Your task to perform on an android device: toggle wifi Image 0: 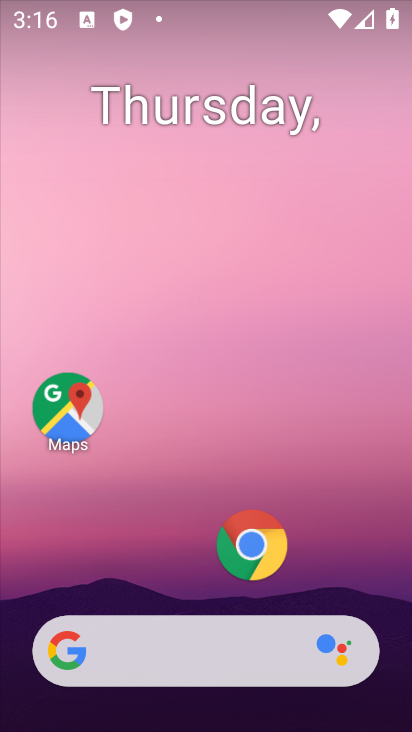
Step 0: drag from (295, 622) to (333, 0)
Your task to perform on an android device: toggle wifi Image 1: 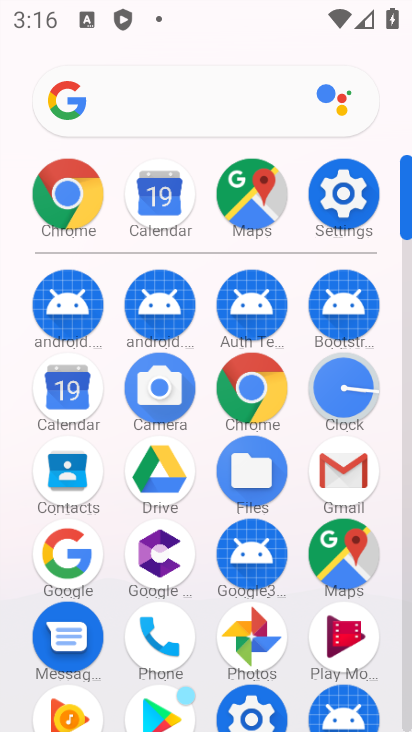
Step 1: click (352, 206)
Your task to perform on an android device: toggle wifi Image 2: 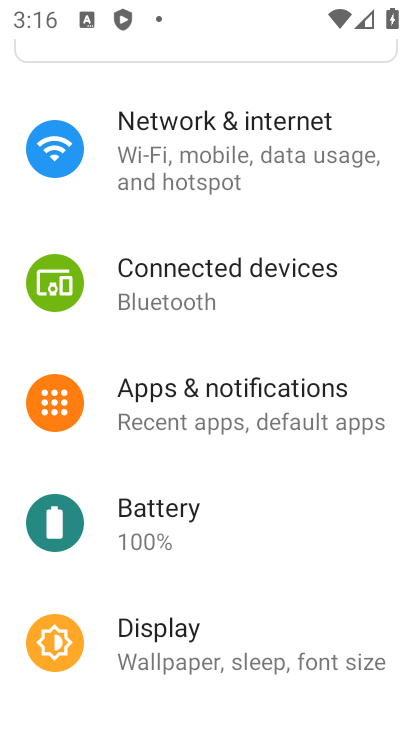
Step 2: click (229, 171)
Your task to perform on an android device: toggle wifi Image 3: 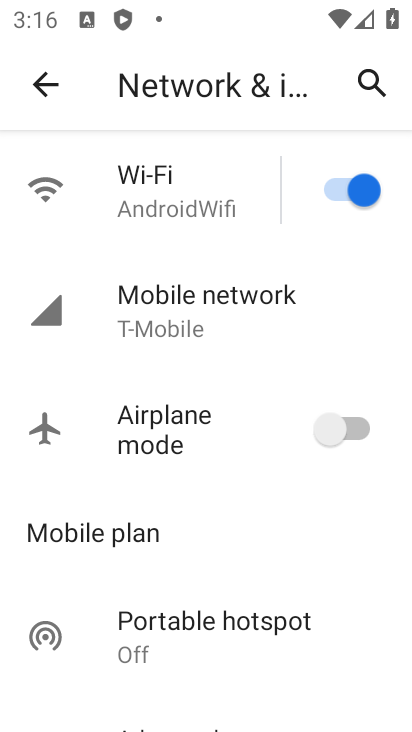
Step 3: click (324, 181)
Your task to perform on an android device: toggle wifi Image 4: 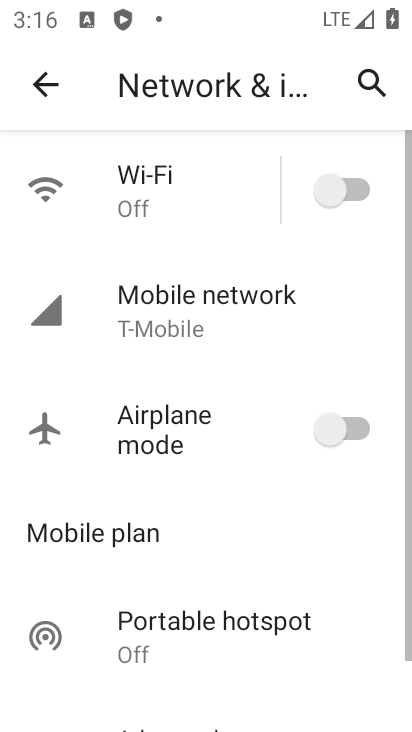
Step 4: task complete